Your task to perform on an android device: Open Reddit.com Image 0: 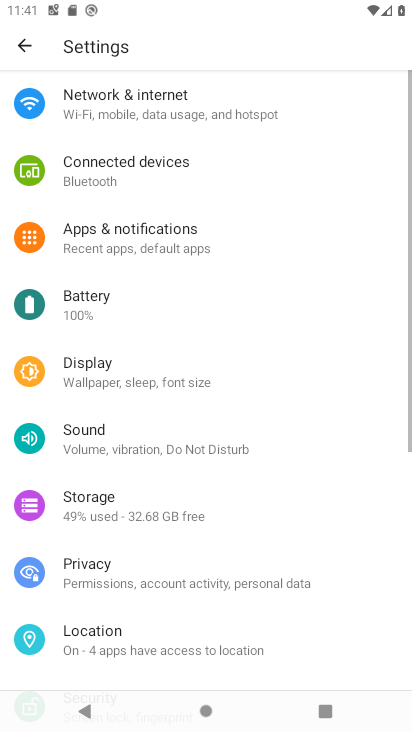
Step 0: press back button
Your task to perform on an android device: Open Reddit.com Image 1: 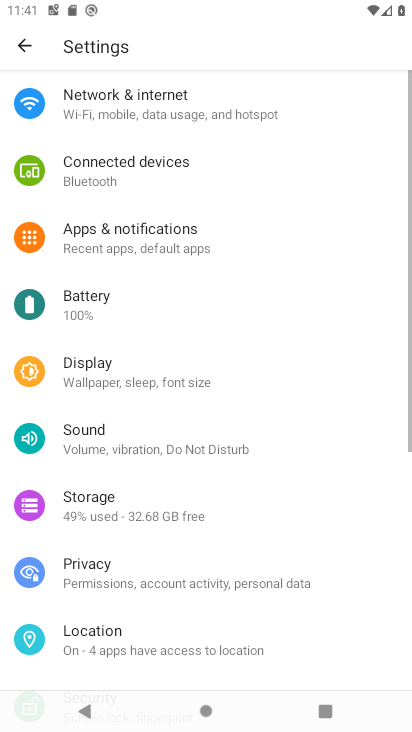
Step 1: press back button
Your task to perform on an android device: Open Reddit.com Image 2: 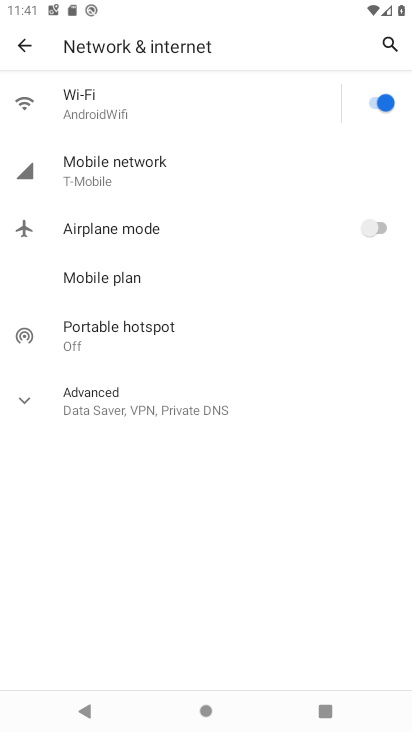
Step 2: press back button
Your task to perform on an android device: Open Reddit.com Image 3: 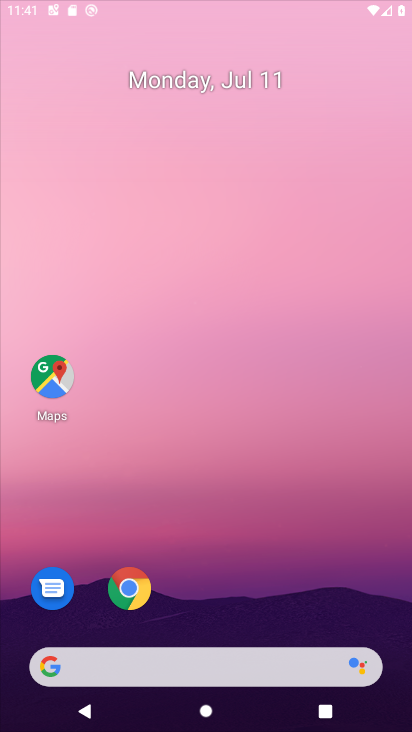
Step 3: click (22, 45)
Your task to perform on an android device: Open Reddit.com Image 4: 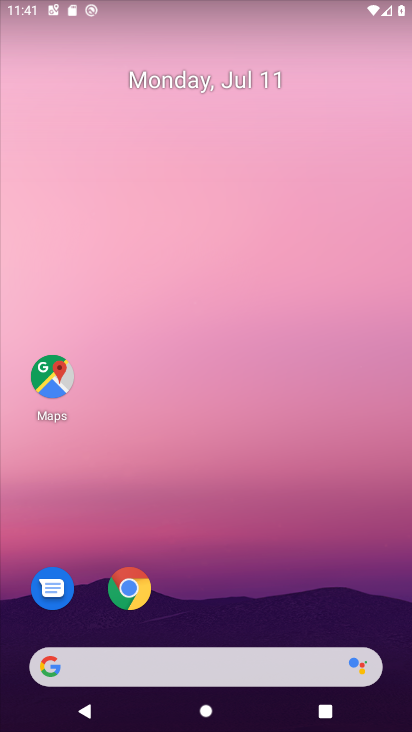
Step 4: drag from (263, 579) to (221, 164)
Your task to perform on an android device: Open Reddit.com Image 5: 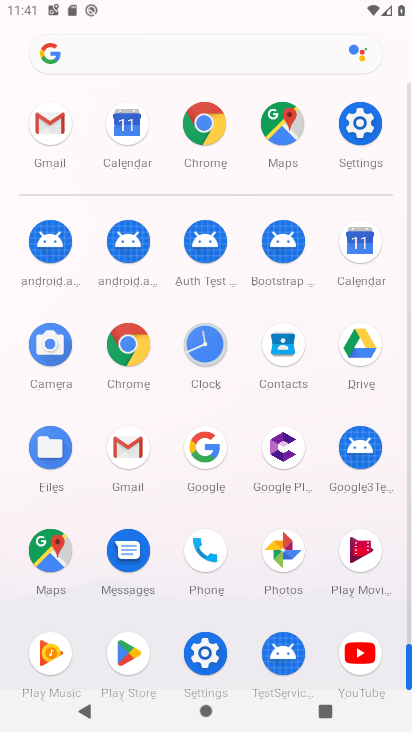
Step 5: click (196, 131)
Your task to perform on an android device: Open Reddit.com Image 6: 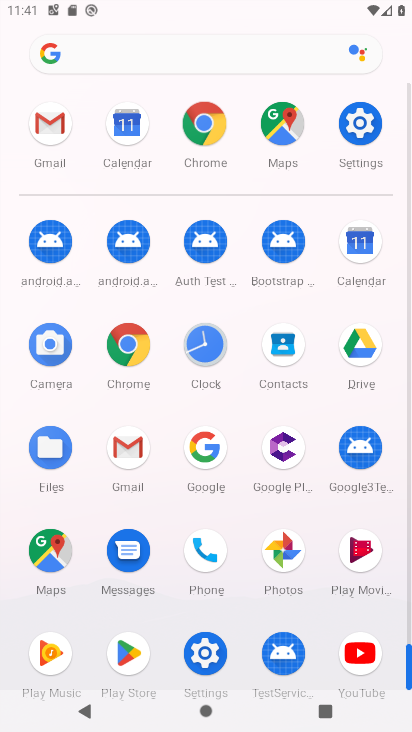
Step 6: click (200, 133)
Your task to perform on an android device: Open Reddit.com Image 7: 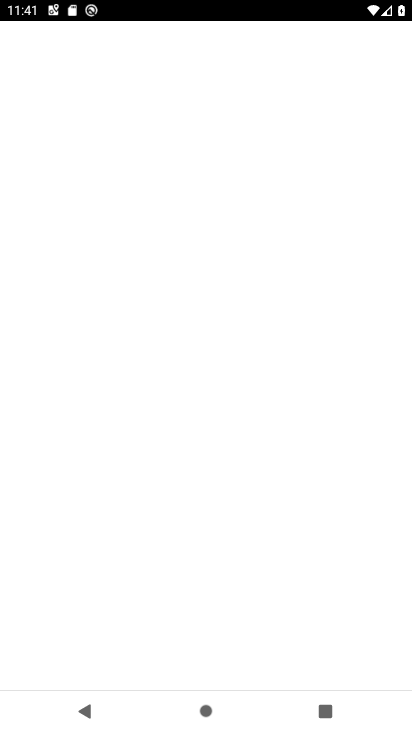
Step 7: click (203, 134)
Your task to perform on an android device: Open Reddit.com Image 8: 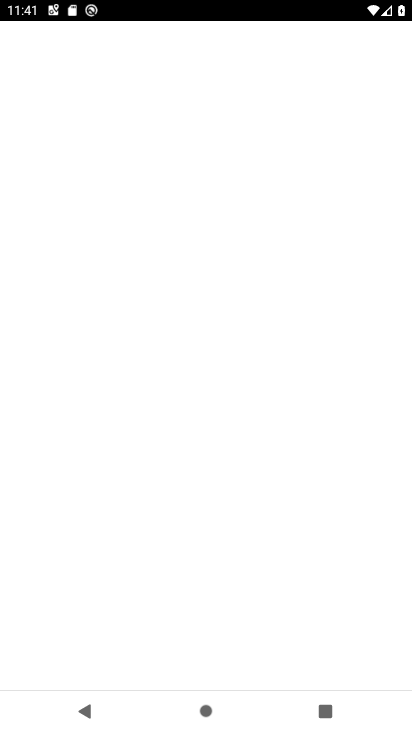
Step 8: click (202, 135)
Your task to perform on an android device: Open Reddit.com Image 9: 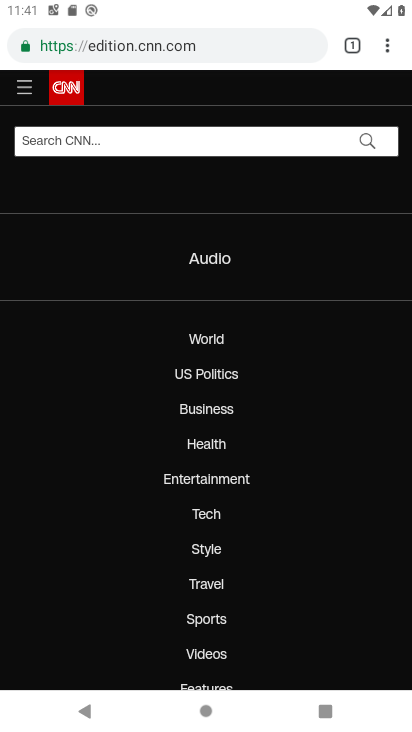
Step 9: click (148, 49)
Your task to perform on an android device: Open Reddit.com Image 10: 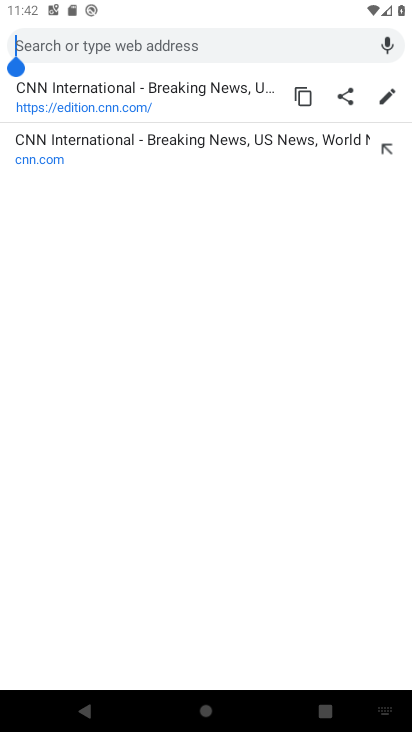
Step 10: click (153, 52)
Your task to perform on an android device: Open Reddit.com Image 11: 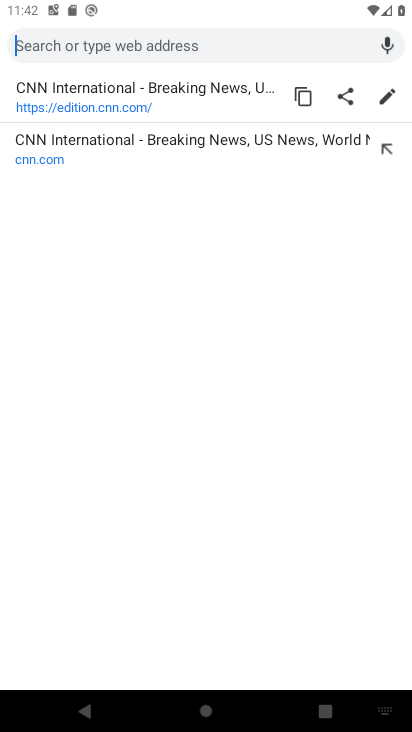
Step 11: type "reddit.com"
Your task to perform on an android device: Open Reddit.com Image 12: 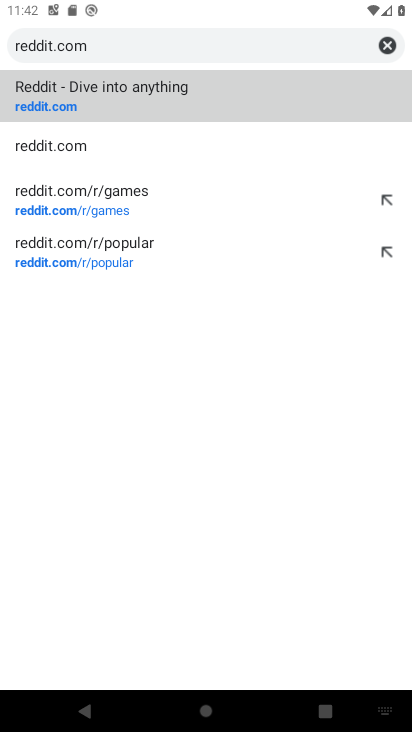
Step 12: click (66, 138)
Your task to perform on an android device: Open Reddit.com Image 13: 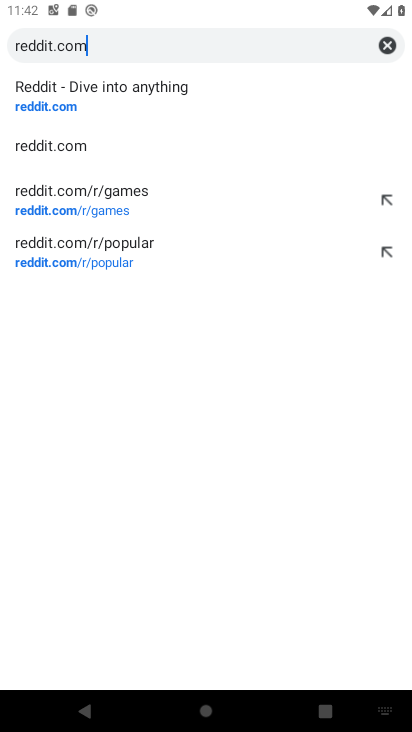
Step 13: click (31, 109)
Your task to perform on an android device: Open Reddit.com Image 14: 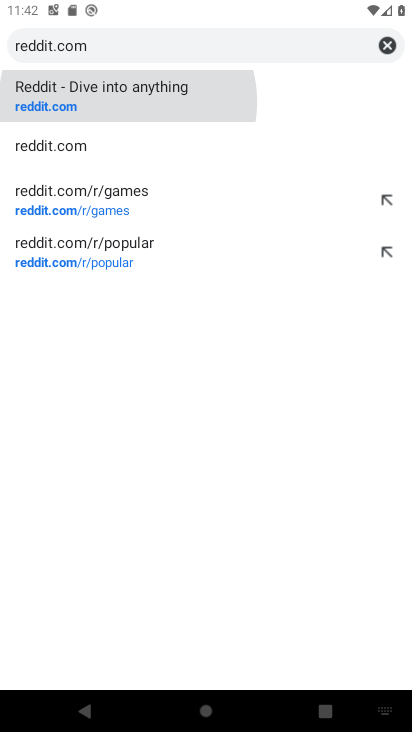
Step 14: click (46, 110)
Your task to perform on an android device: Open Reddit.com Image 15: 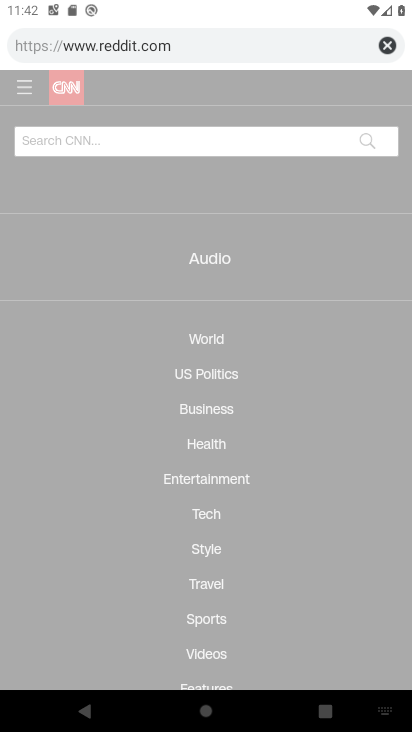
Step 15: click (46, 110)
Your task to perform on an android device: Open Reddit.com Image 16: 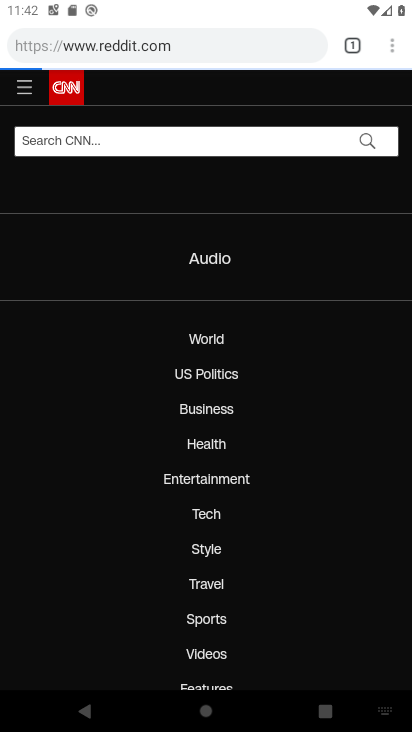
Step 16: click (42, 109)
Your task to perform on an android device: Open Reddit.com Image 17: 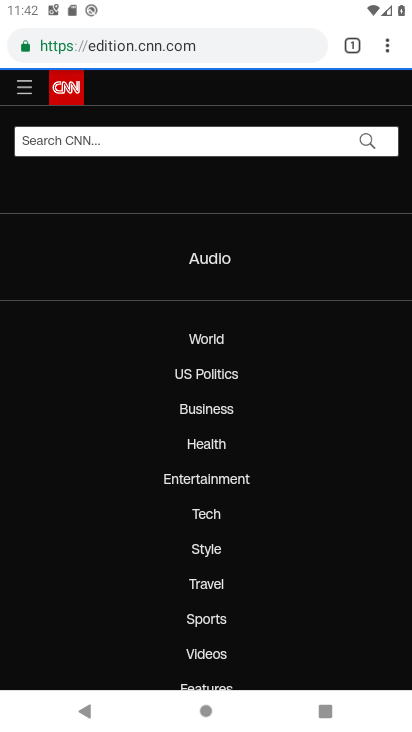
Step 17: task complete